Your task to perform on an android device: clear all cookies in the chrome app Image 0: 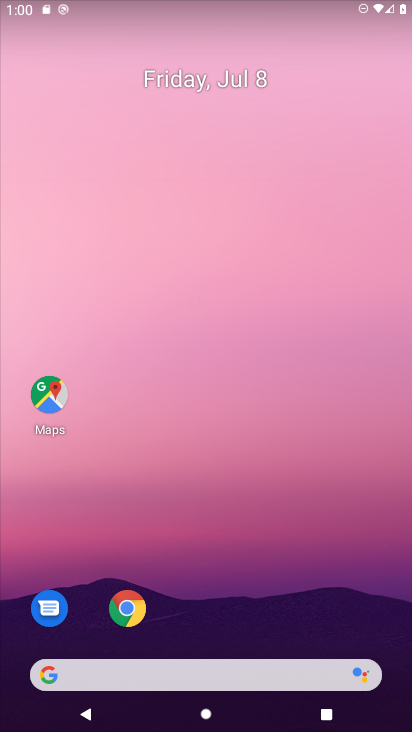
Step 0: click (240, 640)
Your task to perform on an android device: clear all cookies in the chrome app Image 1: 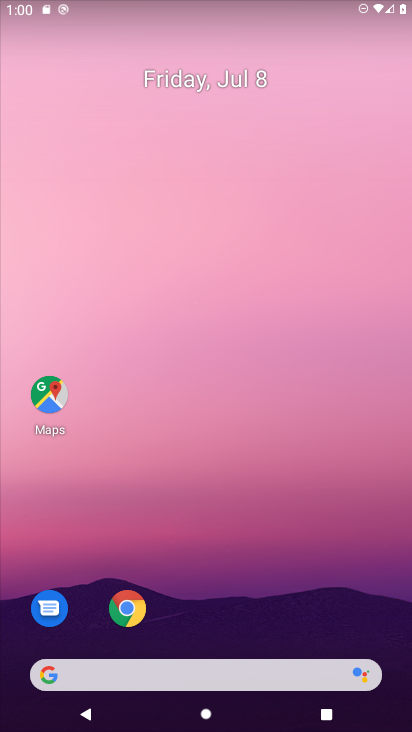
Step 1: drag from (240, 640) to (224, 166)
Your task to perform on an android device: clear all cookies in the chrome app Image 2: 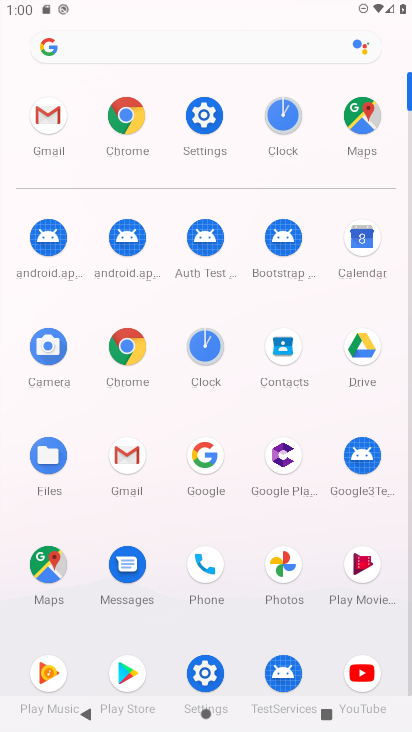
Step 2: click (121, 146)
Your task to perform on an android device: clear all cookies in the chrome app Image 3: 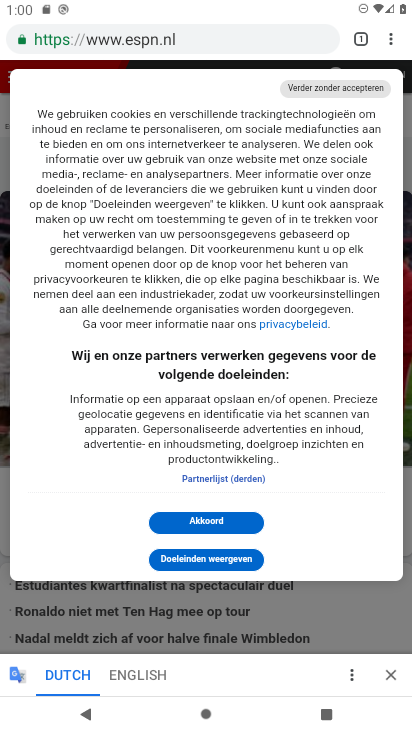
Step 3: click (213, 514)
Your task to perform on an android device: clear all cookies in the chrome app Image 4: 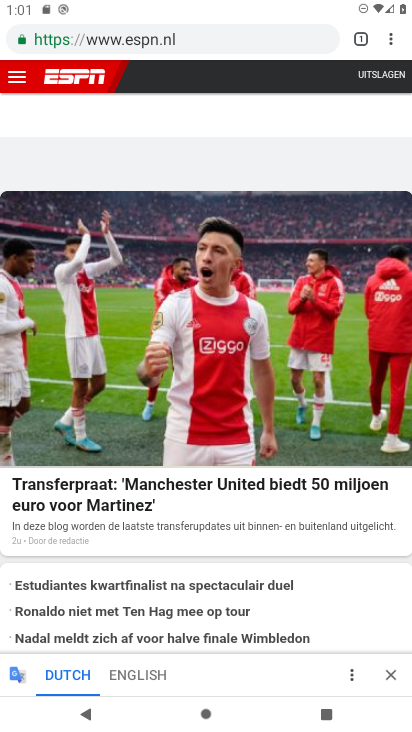
Step 4: click (389, 43)
Your task to perform on an android device: clear all cookies in the chrome app Image 5: 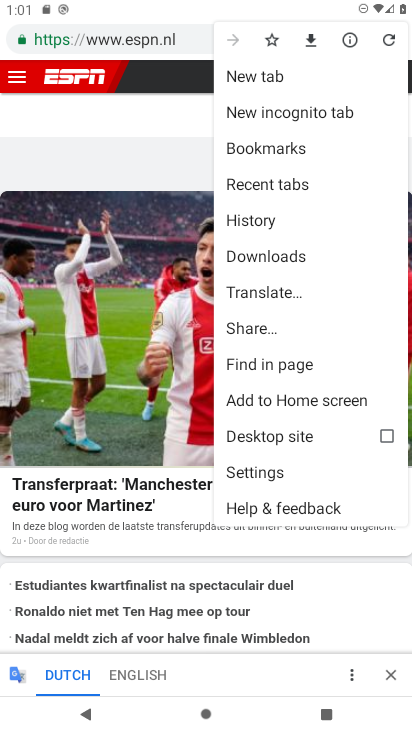
Step 5: click (290, 476)
Your task to perform on an android device: clear all cookies in the chrome app Image 6: 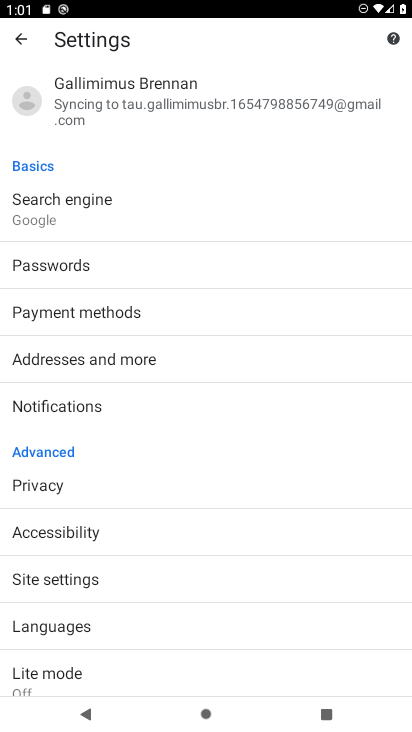
Step 6: click (154, 590)
Your task to perform on an android device: clear all cookies in the chrome app Image 7: 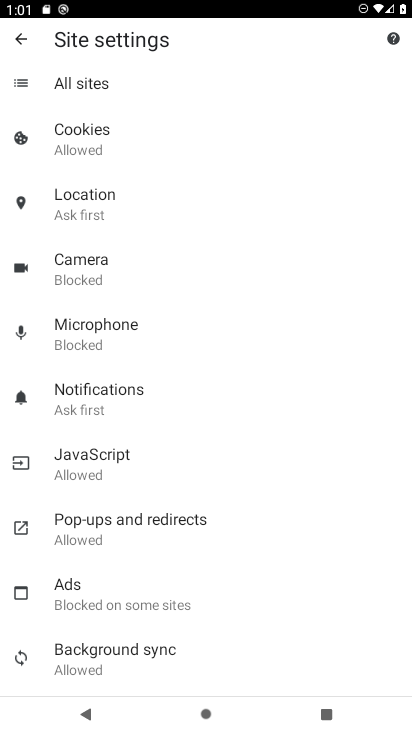
Step 7: click (202, 144)
Your task to perform on an android device: clear all cookies in the chrome app Image 8: 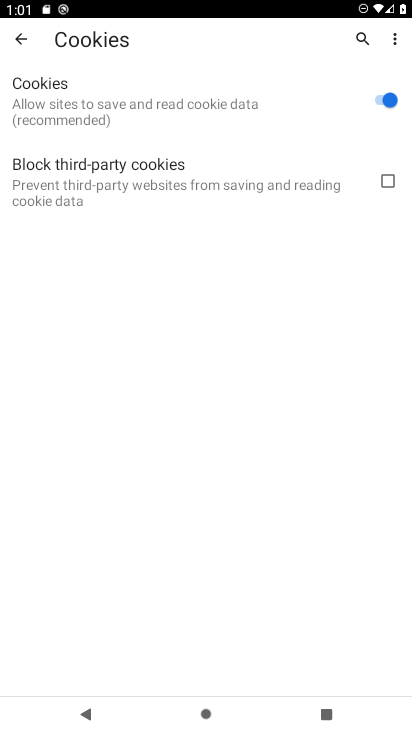
Step 8: click (340, 96)
Your task to perform on an android device: clear all cookies in the chrome app Image 9: 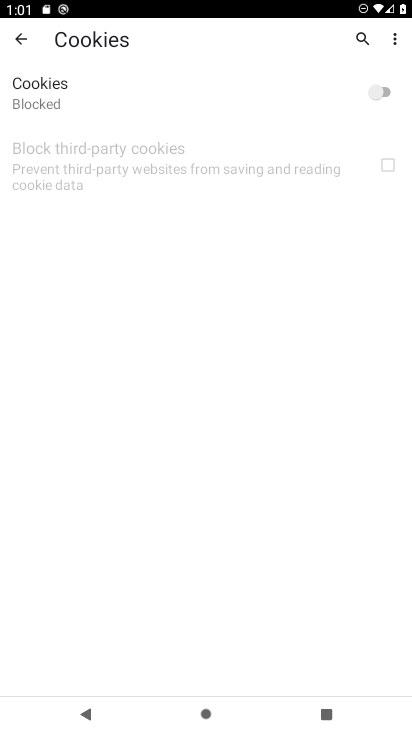
Step 9: task complete